Your task to perform on an android device: find photos in the google photos app Image 0: 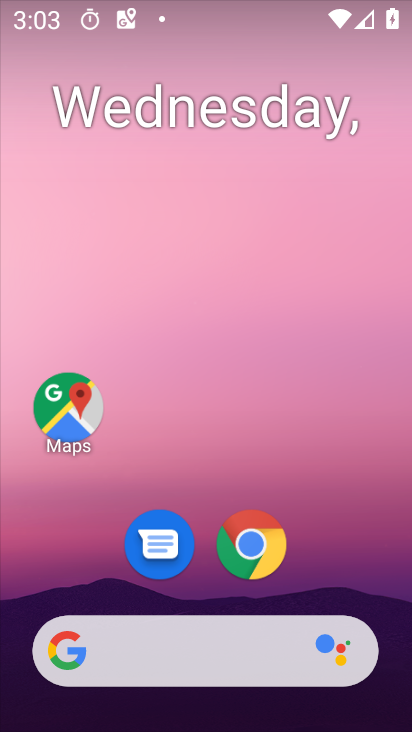
Step 0: drag from (355, 485) to (337, 172)
Your task to perform on an android device: find photos in the google photos app Image 1: 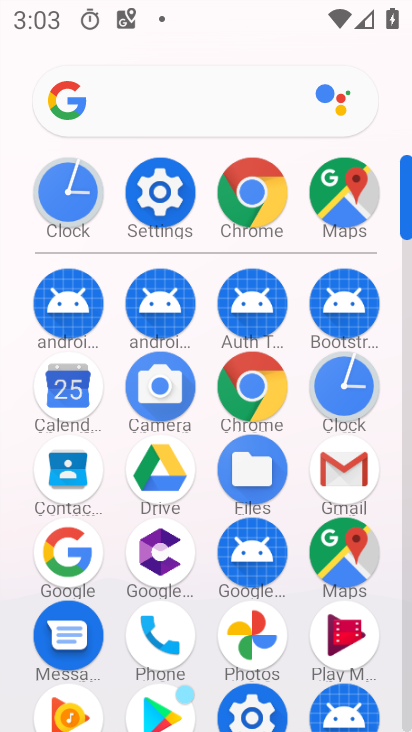
Step 1: click (242, 645)
Your task to perform on an android device: find photos in the google photos app Image 2: 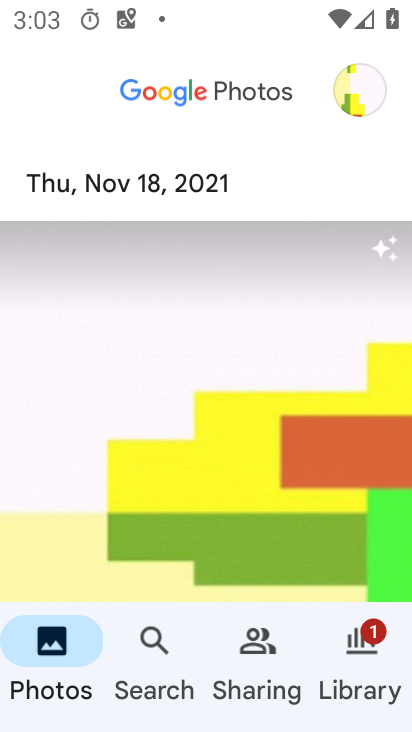
Step 2: task complete